Your task to perform on an android device: turn on javascript in the chrome app Image 0: 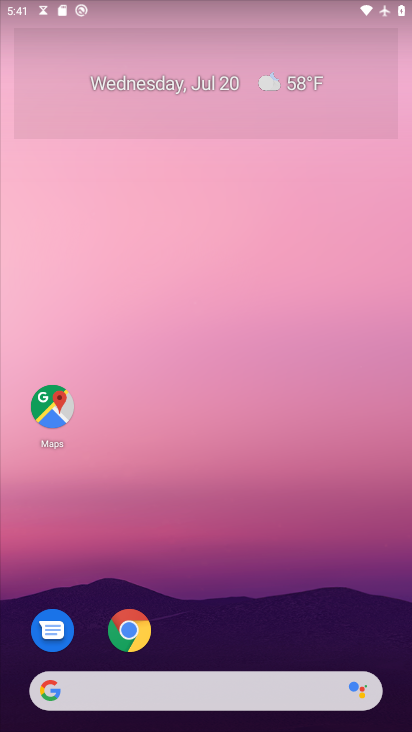
Step 0: drag from (222, 645) to (214, 3)
Your task to perform on an android device: turn on javascript in the chrome app Image 1: 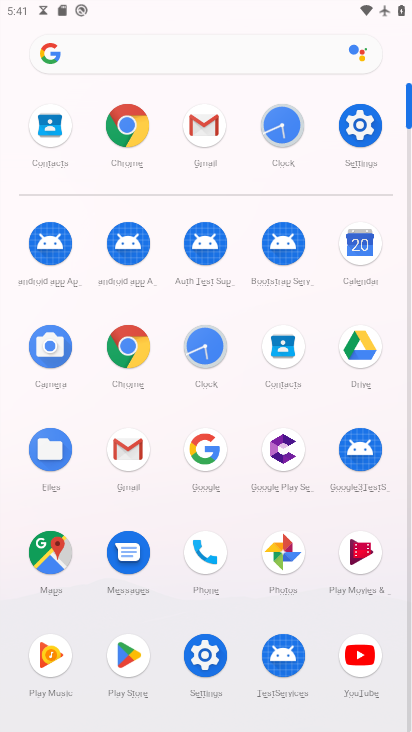
Step 1: click (119, 127)
Your task to perform on an android device: turn on javascript in the chrome app Image 2: 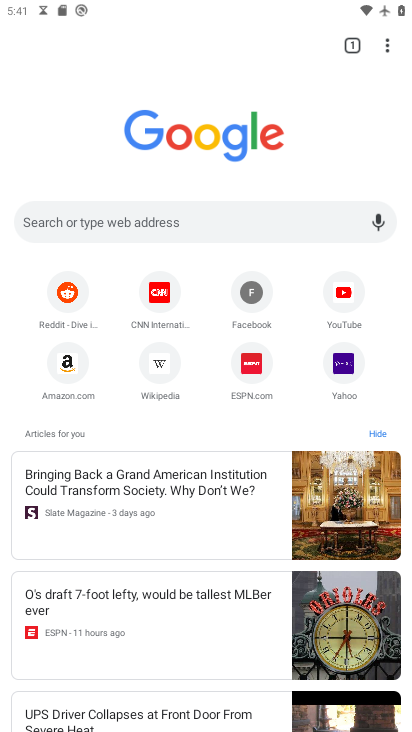
Step 2: drag from (387, 46) to (221, 379)
Your task to perform on an android device: turn on javascript in the chrome app Image 3: 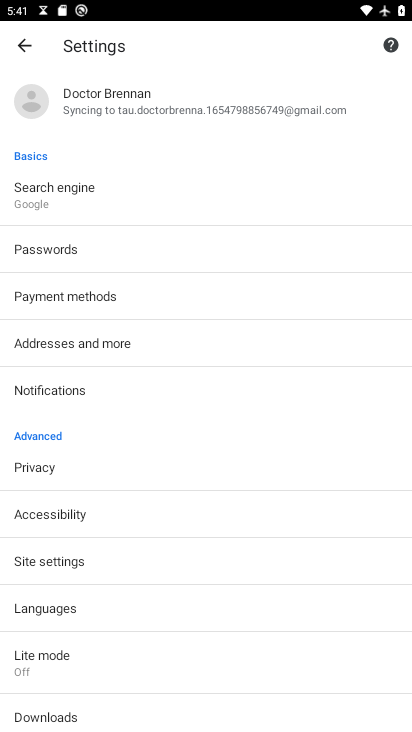
Step 3: click (20, 557)
Your task to perform on an android device: turn on javascript in the chrome app Image 4: 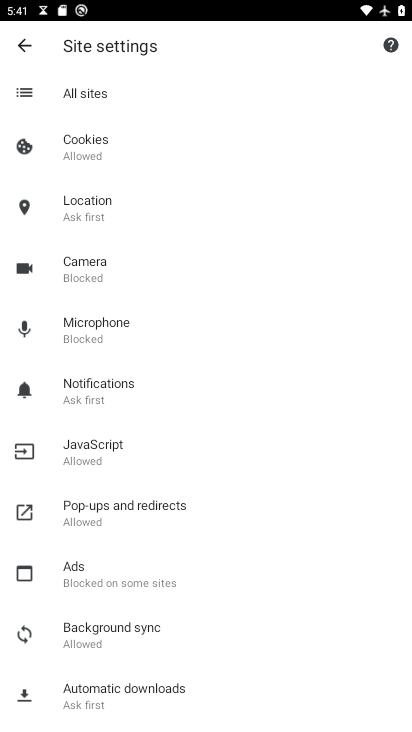
Step 4: click (96, 438)
Your task to perform on an android device: turn on javascript in the chrome app Image 5: 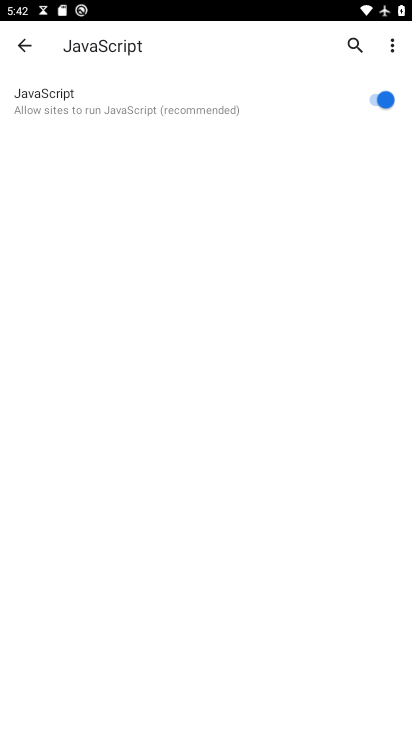
Step 5: task complete